Your task to perform on an android device: Is it going to rain tomorrow? Image 0: 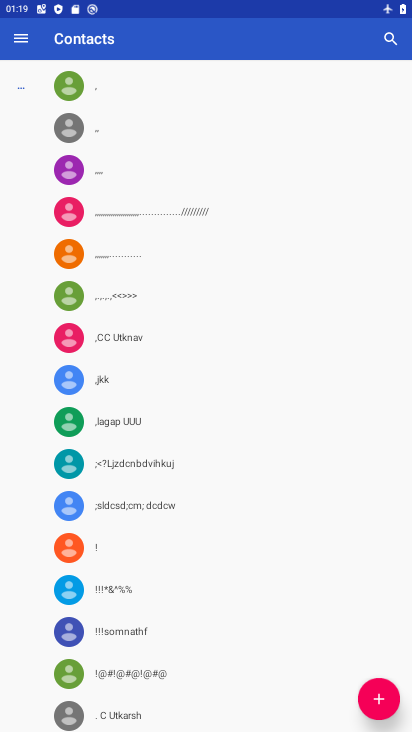
Step 0: press home button
Your task to perform on an android device: Is it going to rain tomorrow? Image 1: 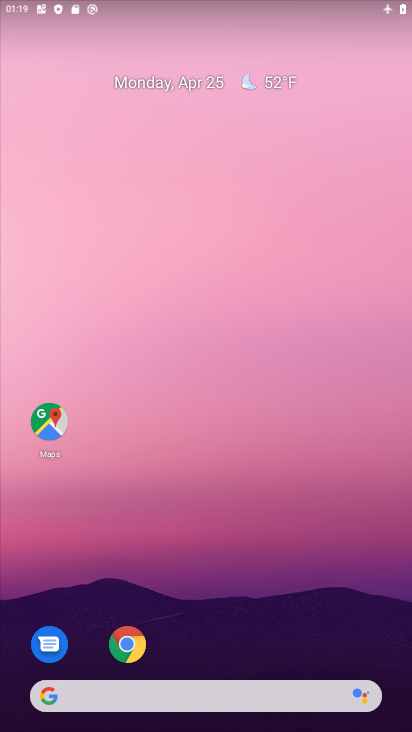
Step 1: click (231, 687)
Your task to perform on an android device: Is it going to rain tomorrow? Image 2: 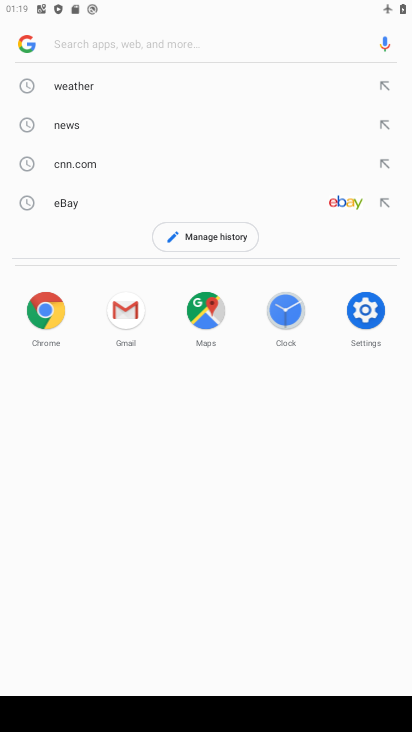
Step 2: click (83, 86)
Your task to perform on an android device: Is it going to rain tomorrow? Image 3: 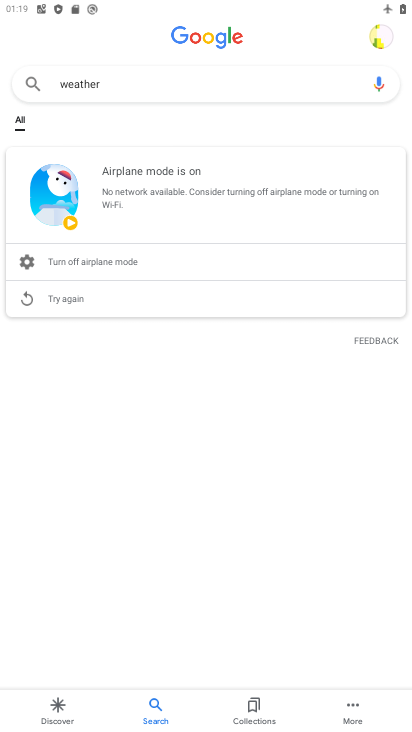
Step 3: task complete